Your task to perform on an android device: Open ESPN.com Image 0: 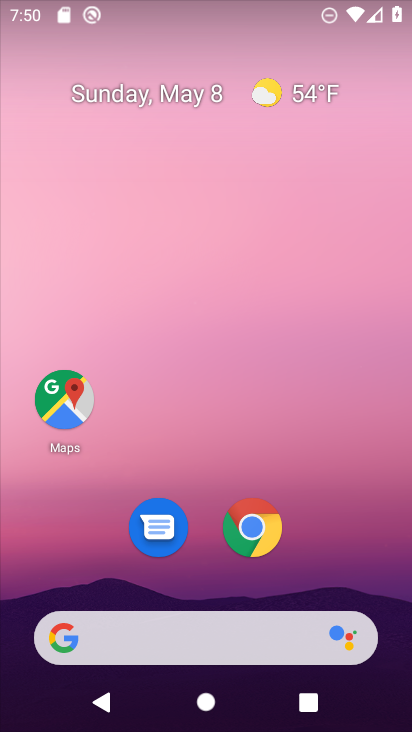
Step 0: drag from (380, 582) to (379, 142)
Your task to perform on an android device: Open ESPN.com Image 1: 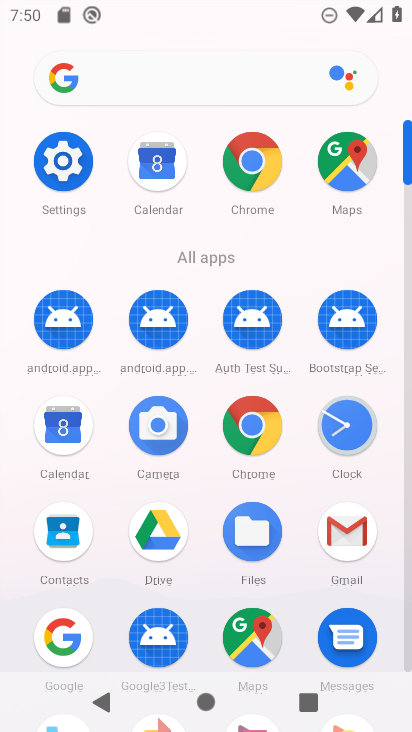
Step 1: click (240, 437)
Your task to perform on an android device: Open ESPN.com Image 2: 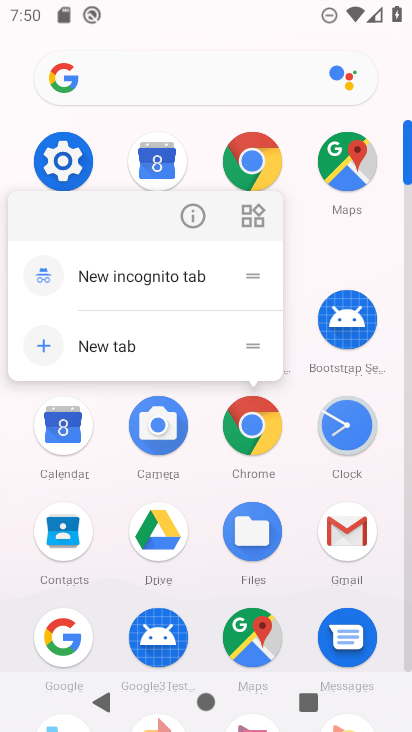
Step 2: click (247, 430)
Your task to perform on an android device: Open ESPN.com Image 3: 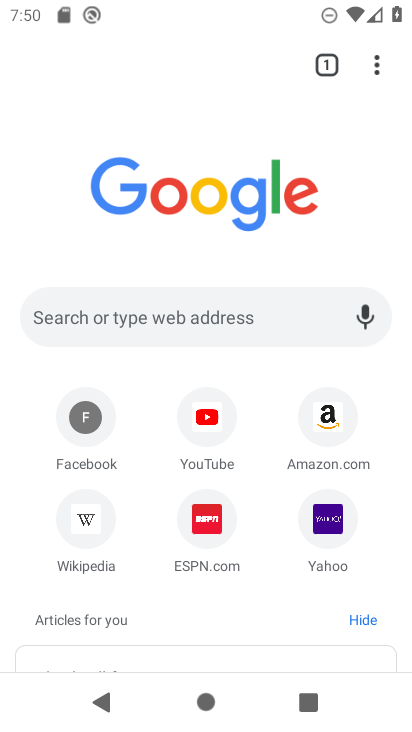
Step 3: click (221, 524)
Your task to perform on an android device: Open ESPN.com Image 4: 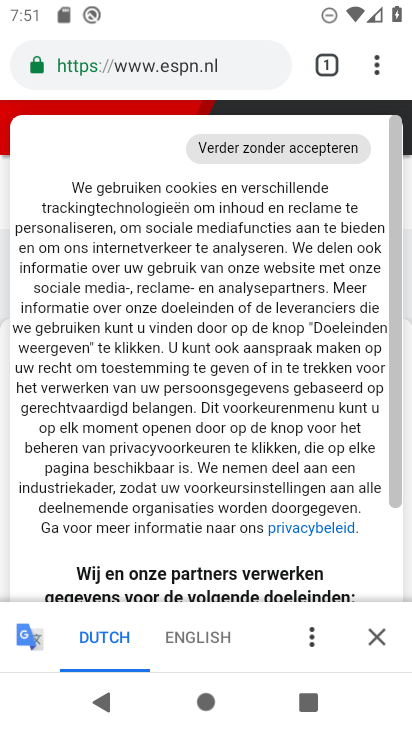
Step 4: task complete